Your task to perform on an android device: search for starred emails in the gmail app Image 0: 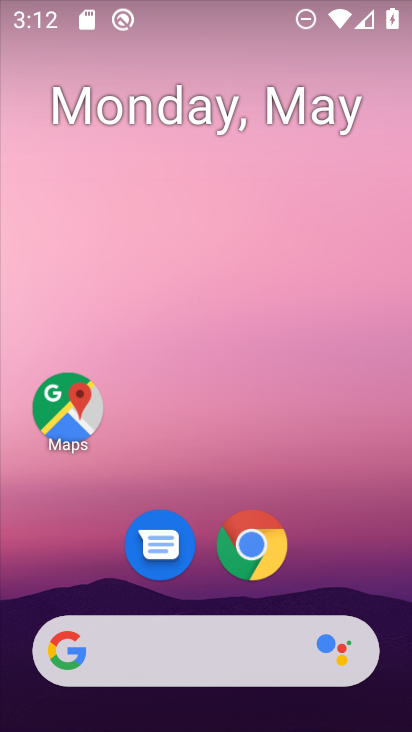
Step 0: drag from (307, 560) to (328, 174)
Your task to perform on an android device: search for starred emails in the gmail app Image 1: 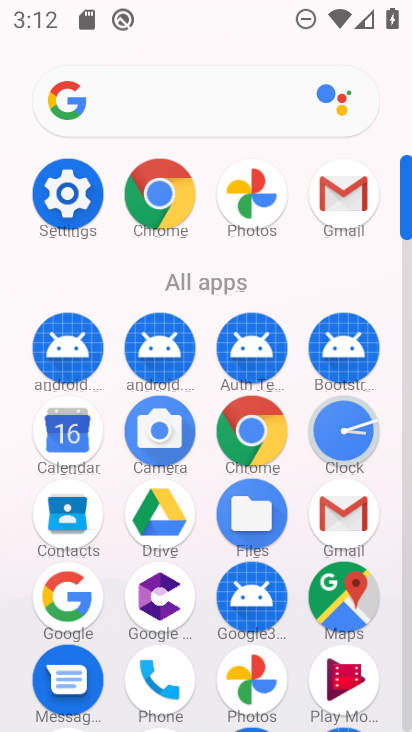
Step 1: click (345, 213)
Your task to perform on an android device: search for starred emails in the gmail app Image 2: 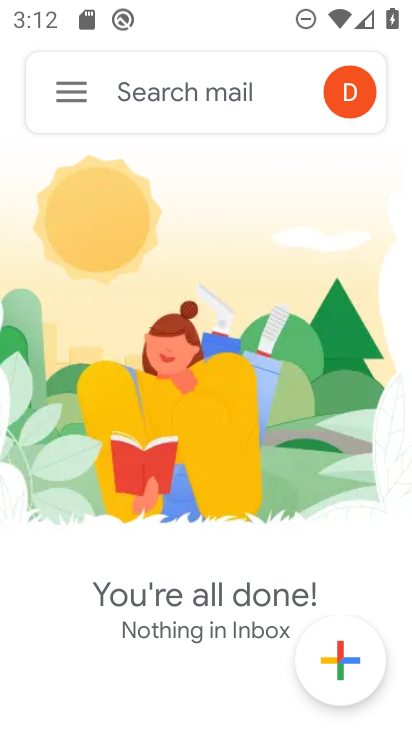
Step 2: click (58, 97)
Your task to perform on an android device: search for starred emails in the gmail app Image 3: 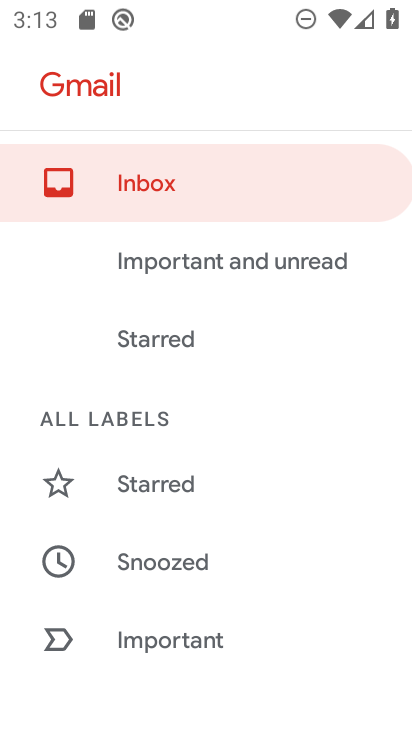
Step 3: click (201, 487)
Your task to perform on an android device: search for starred emails in the gmail app Image 4: 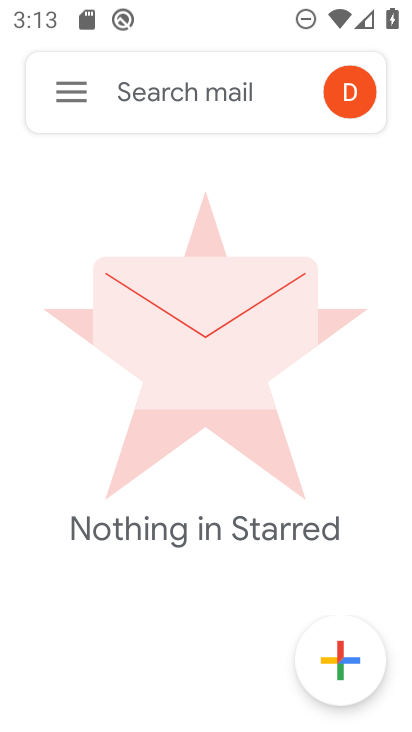
Step 4: task complete